Your task to perform on an android device: Search for Mexican restaurants on Maps Image 0: 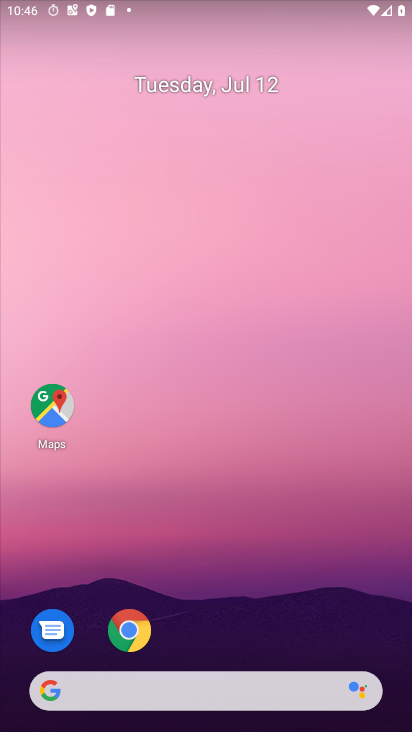
Step 0: click (55, 399)
Your task to perform on an android device: Search for Mexican restaurants on Maps Image 1: 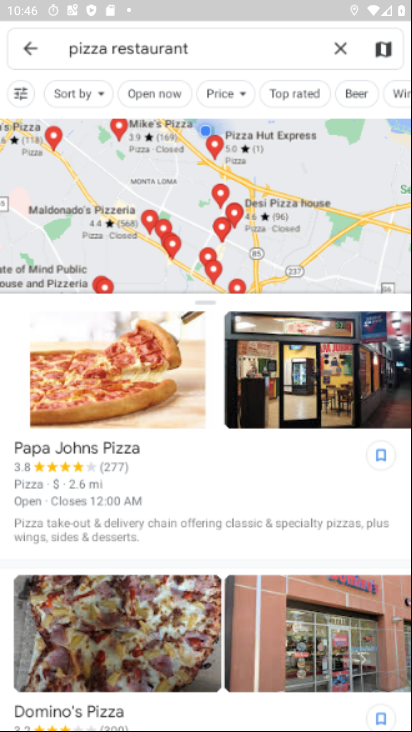
Step 1: click (337, 48)
Your task to perform on an android device: Search for Mexican restaurants on Maps Image 2: 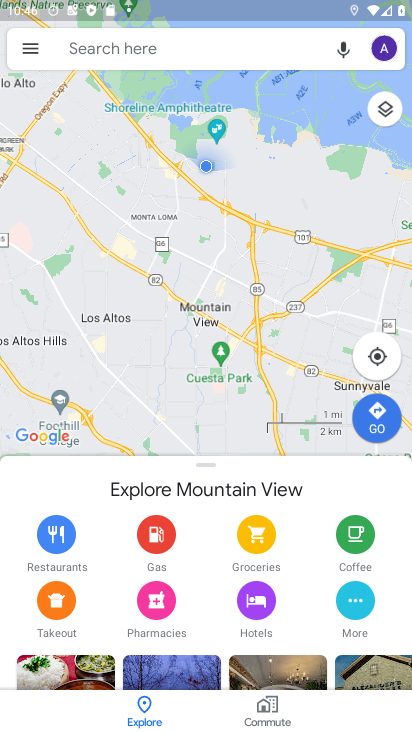
Step 2: click (193, 47)
Your task to perform on an android device: Search for Mexican restaurants on Maps Image 3: 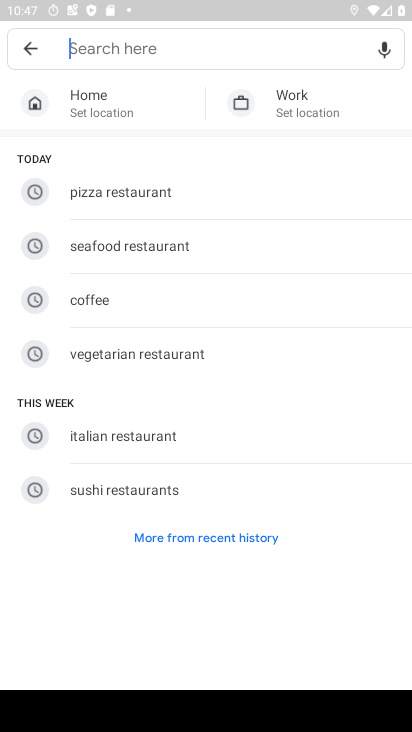
Step 3: type "mexican restaurent"
Your task to perform on an android device: Search for Mexican restaurants on Maps Image 4: 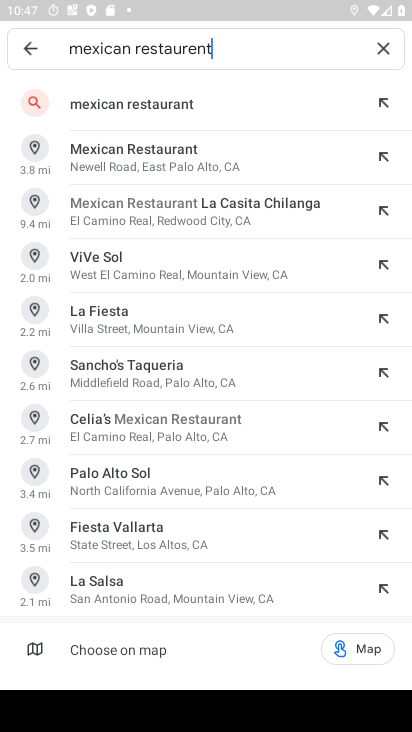
Step 4: click (189, 96)
Your task to perform on an android device: Search for Mexican restaurants on Maps Image 5: 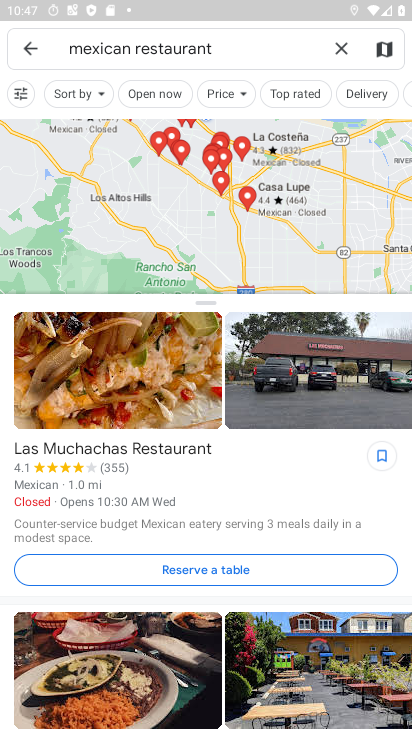
Step 5: task complete